Your task to perform on an android device: check the backup settings in the google photos Image 0: 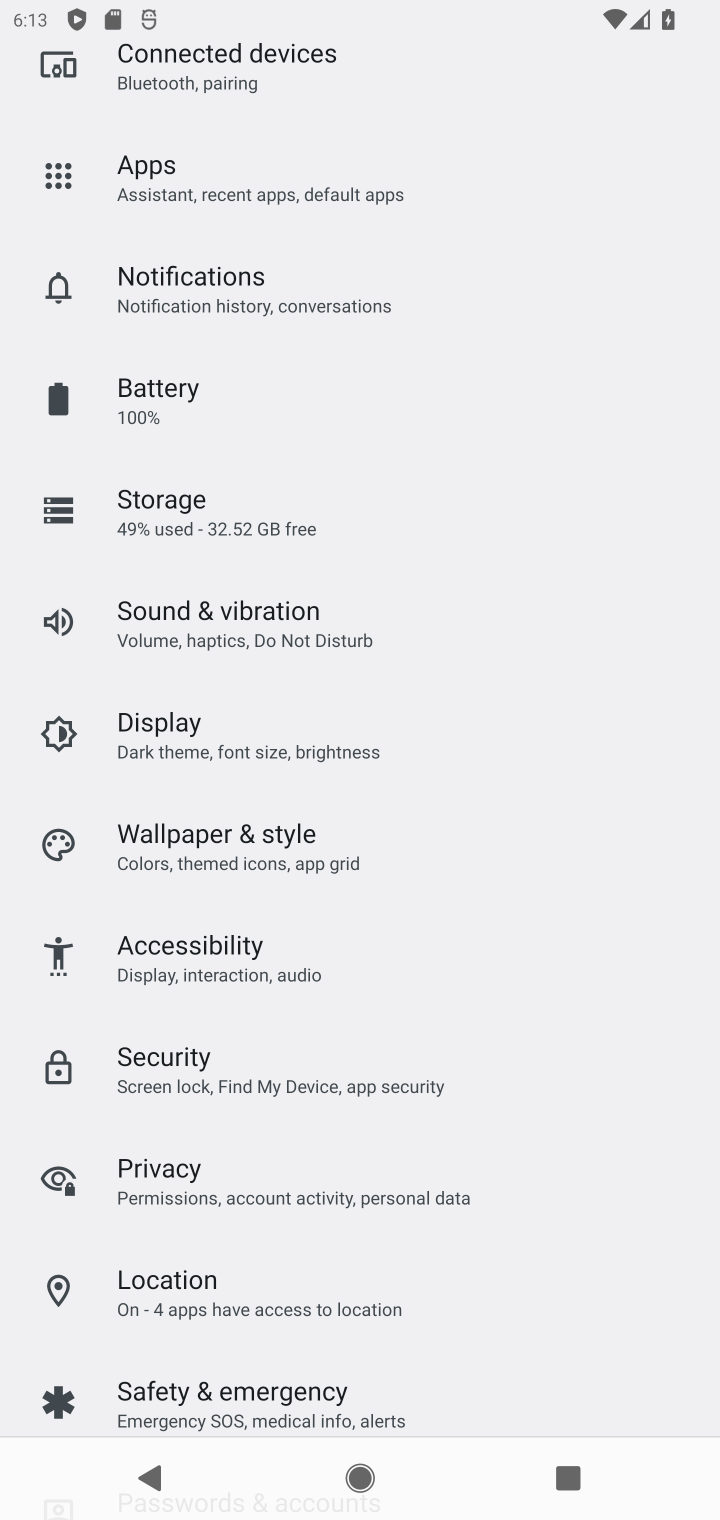
Step 0: press home button
Your task to perform on an android device: check the backup settings in the google photos Image 1: 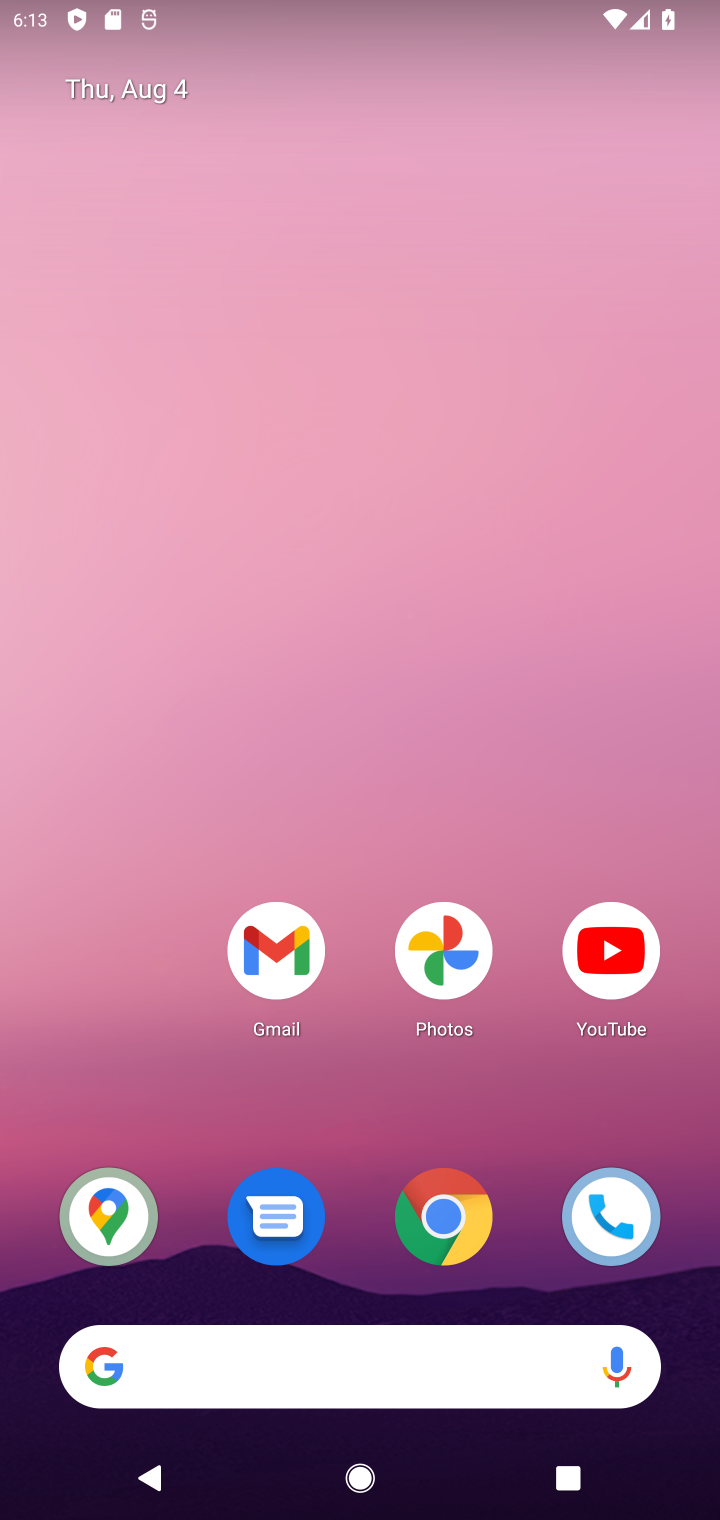
Step 1: click (437, 974)
Your task to perform on an android device: check the backup settings in the google photos Image 2: 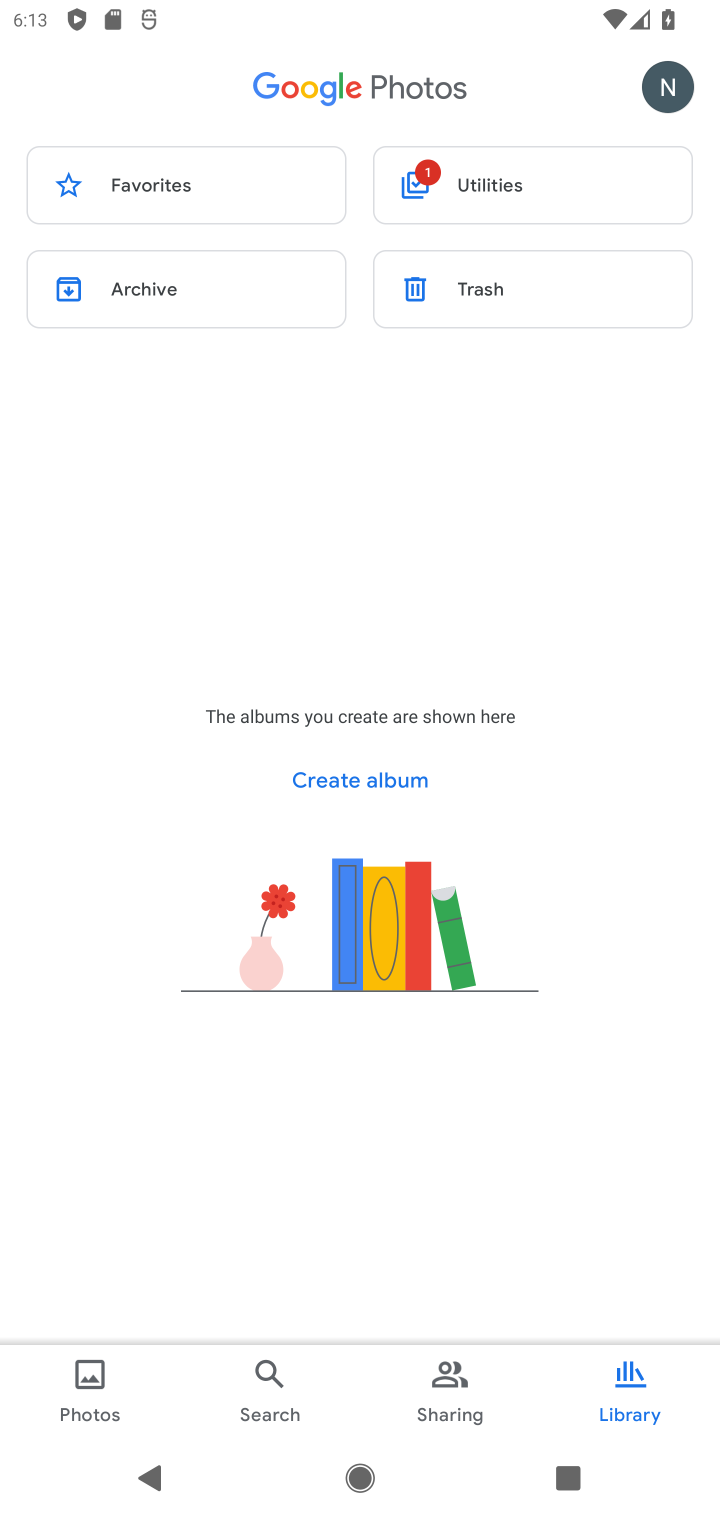
Step 2: click (652, 60)
Your task to perform on an android device: check the backup settings in the google photos Image 3: 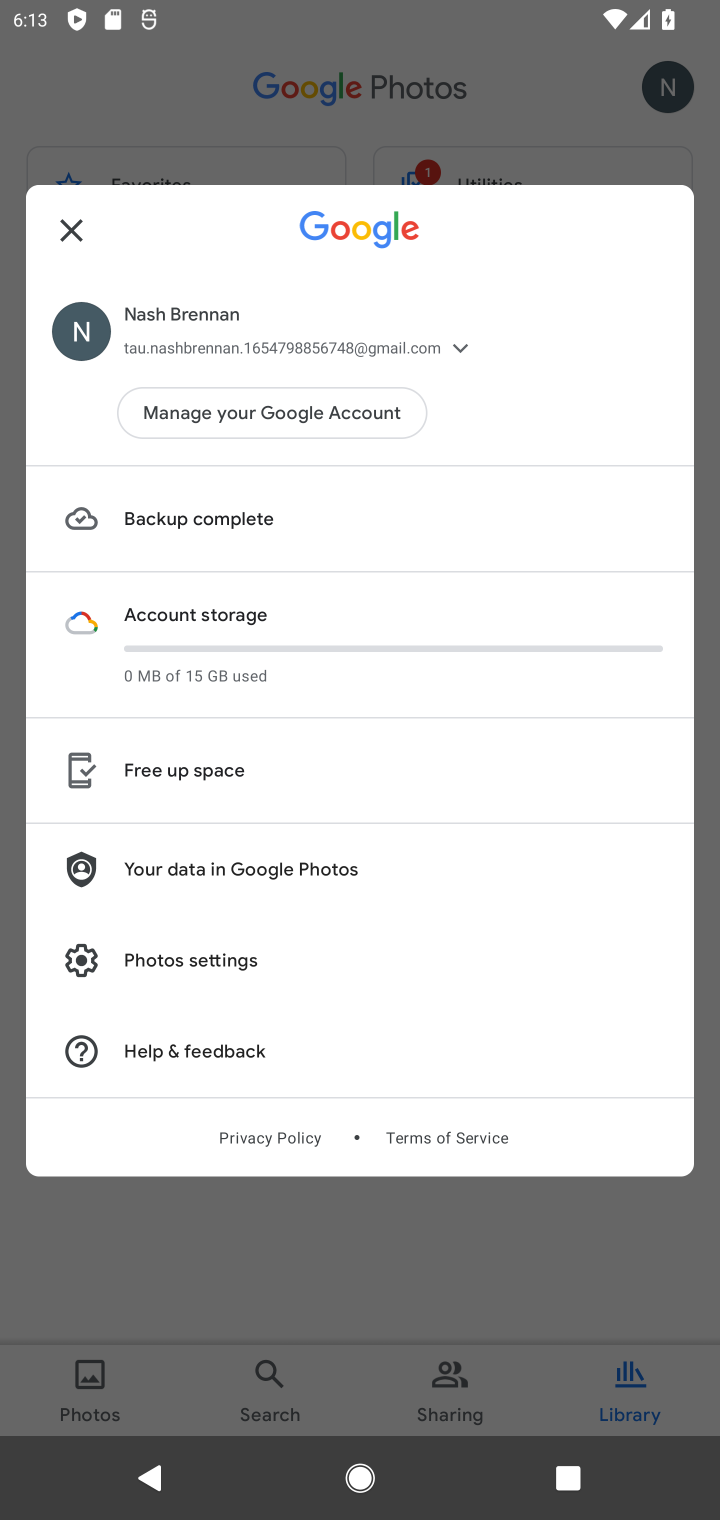
Step 3: click (244, 950)
Your task to perform on an android device: check the backup settings in the google photos Image 4: 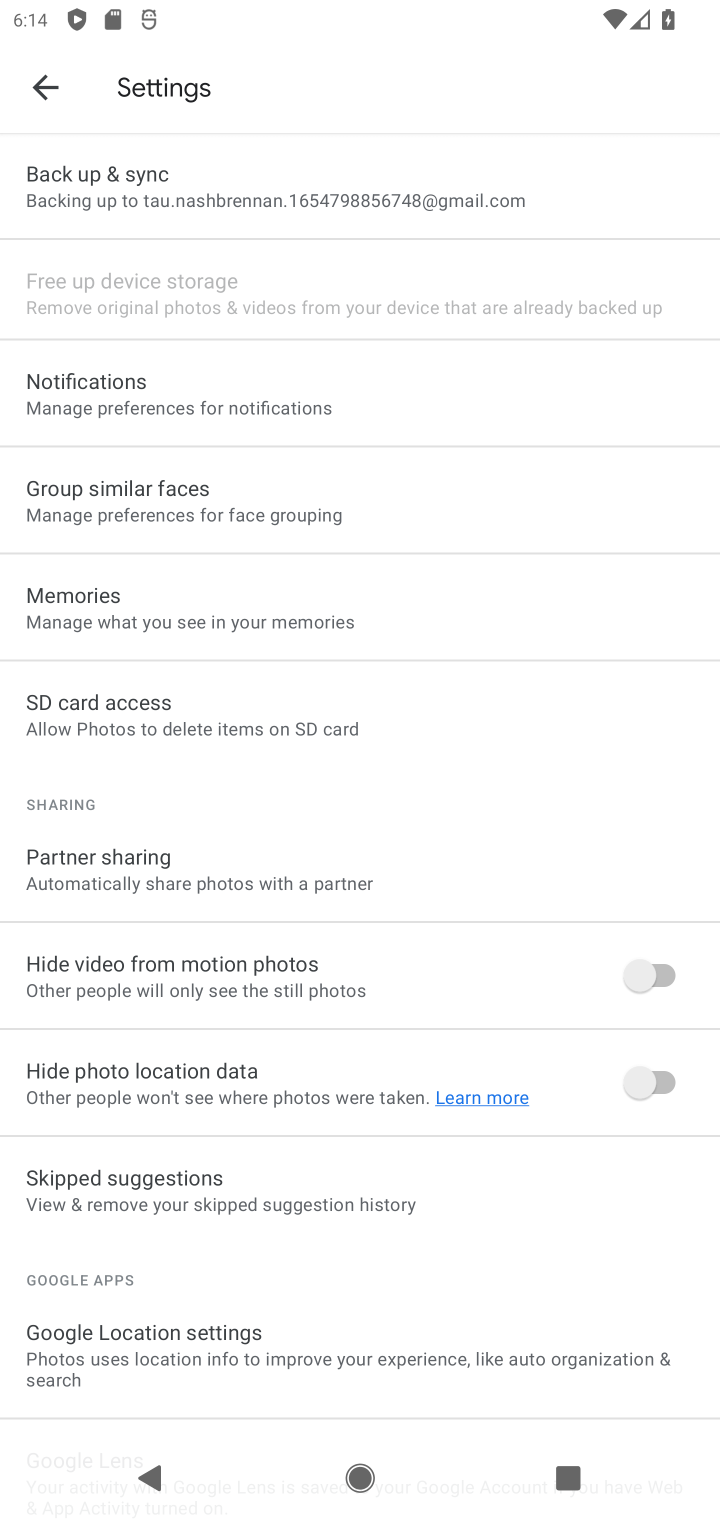
Step 4: click (182, 169)
Your task to perform on an android device: check the backup settings in the google photos Image 5: 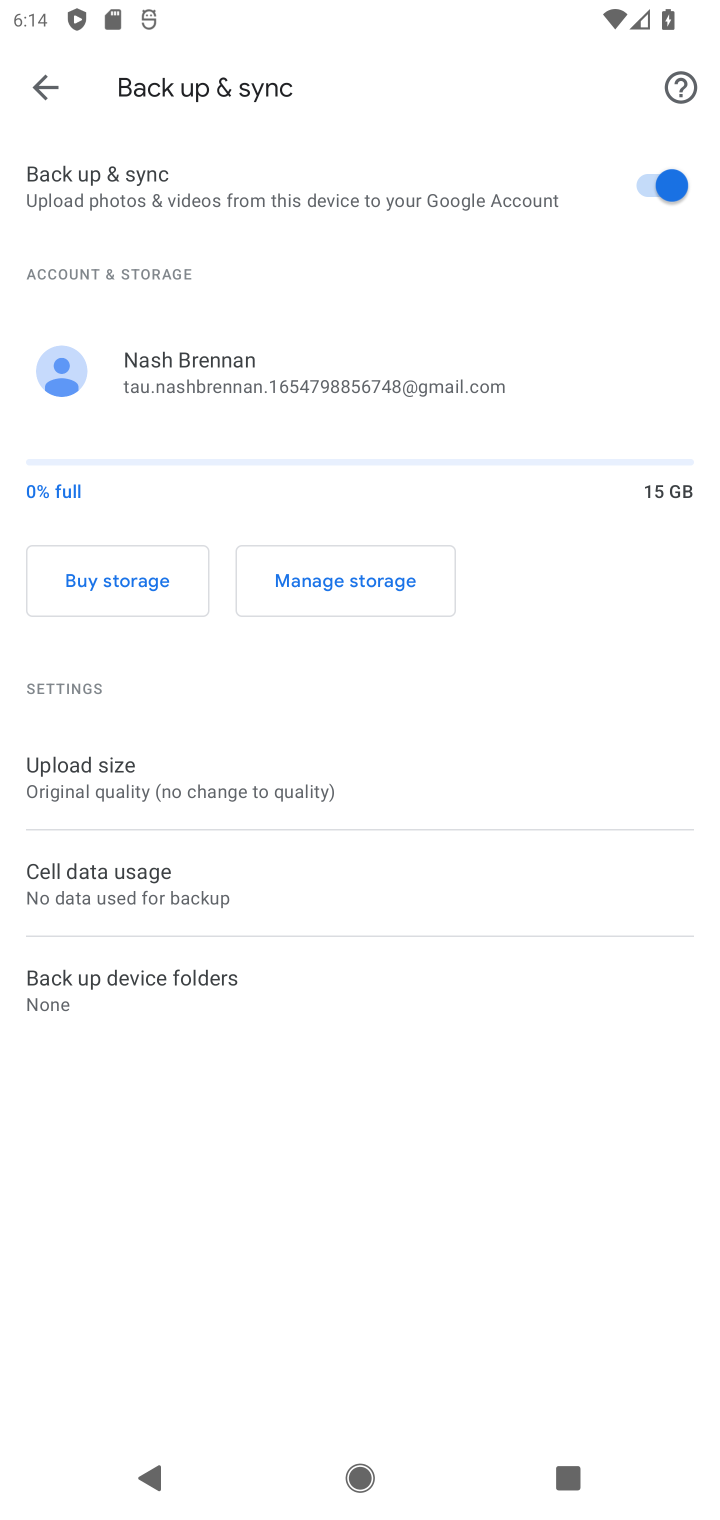
Step 5: task complete